Your task to perform on an android device: turn smart compose on in the gmail app Image 0: 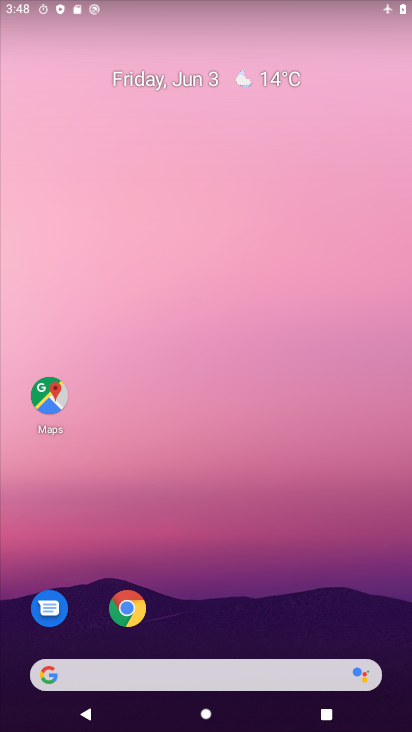
Step 0: drag from (197, 653) to (176, 188)
Your task to perform on an android device: turn smart compose on in the gmail app Image 1: 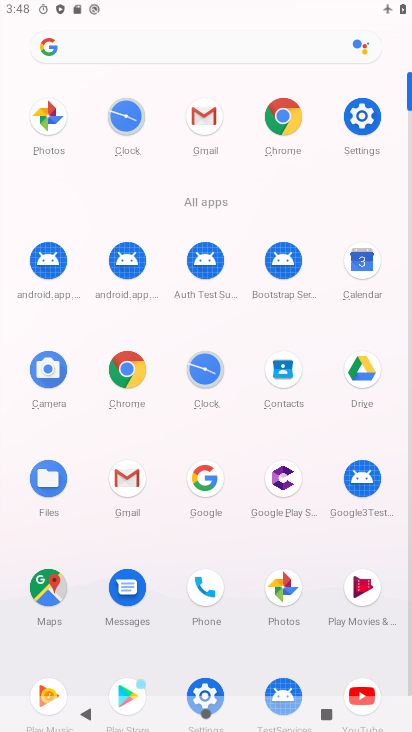
Step 1: click (203, 119)
Your task to perform on an android device: turn smart compose on in the gmail app Image 2: 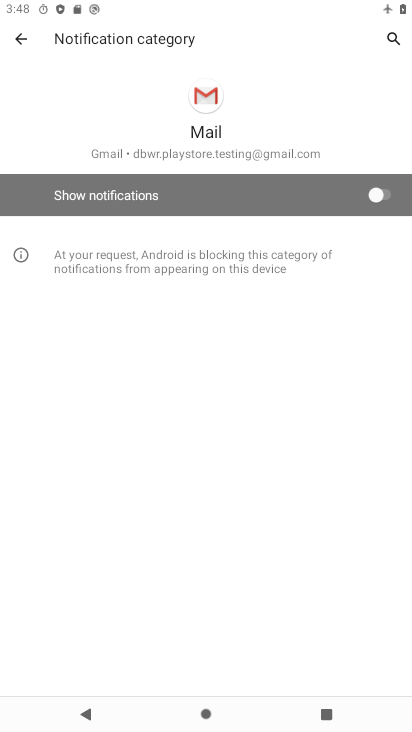
Step 2: click (23, 35)
Your task to perform on an android device: turn smart compose on in the gmail app Image 3: 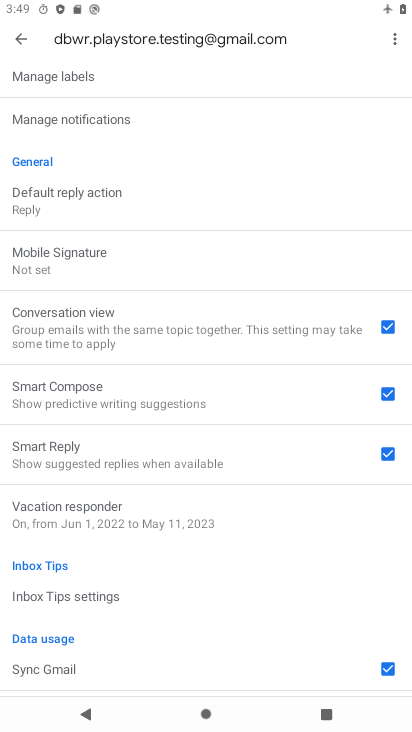
Step 3: task complete